Your task to perform on an android device: open chrome and create a bookmark for the current page Image 0: 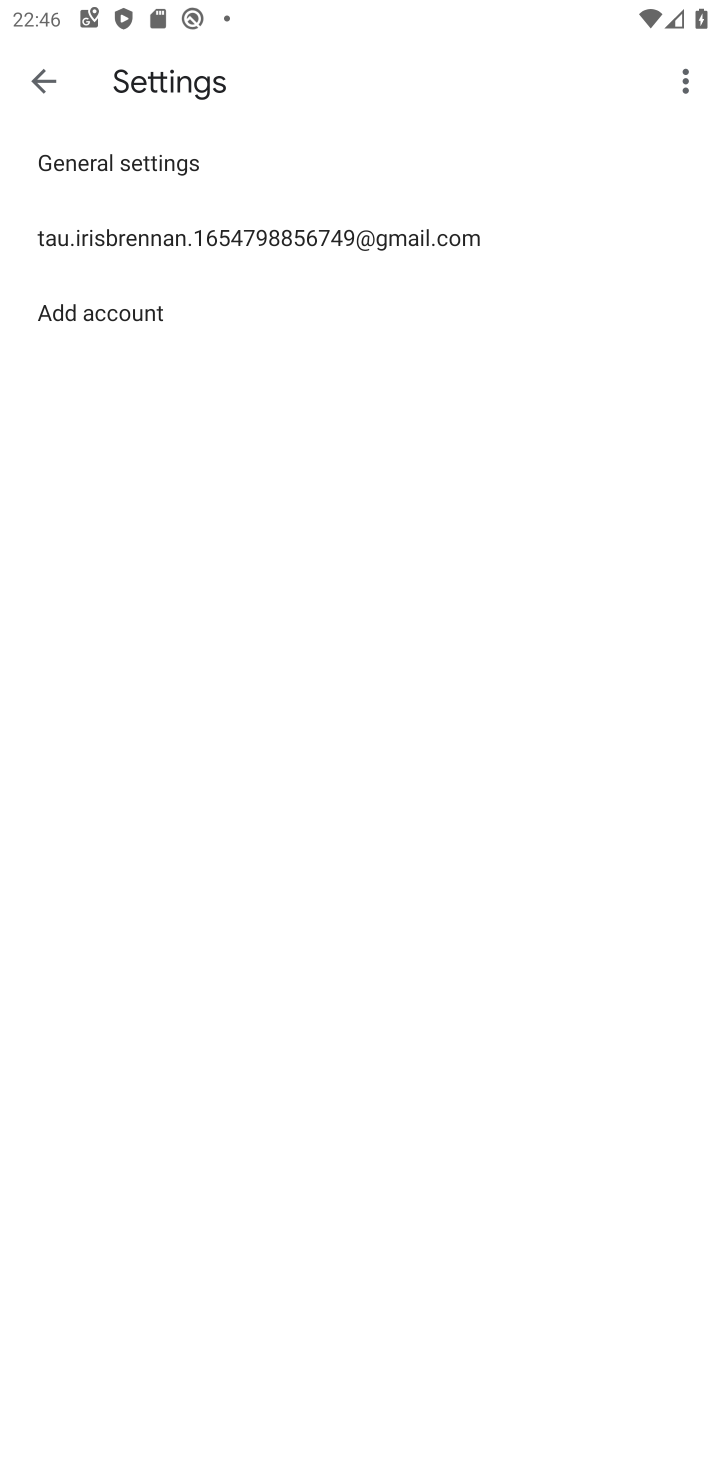
Step 0: press home button
Your task to perform on an android device: open chrome and create a bookmark for the current page Image 1: 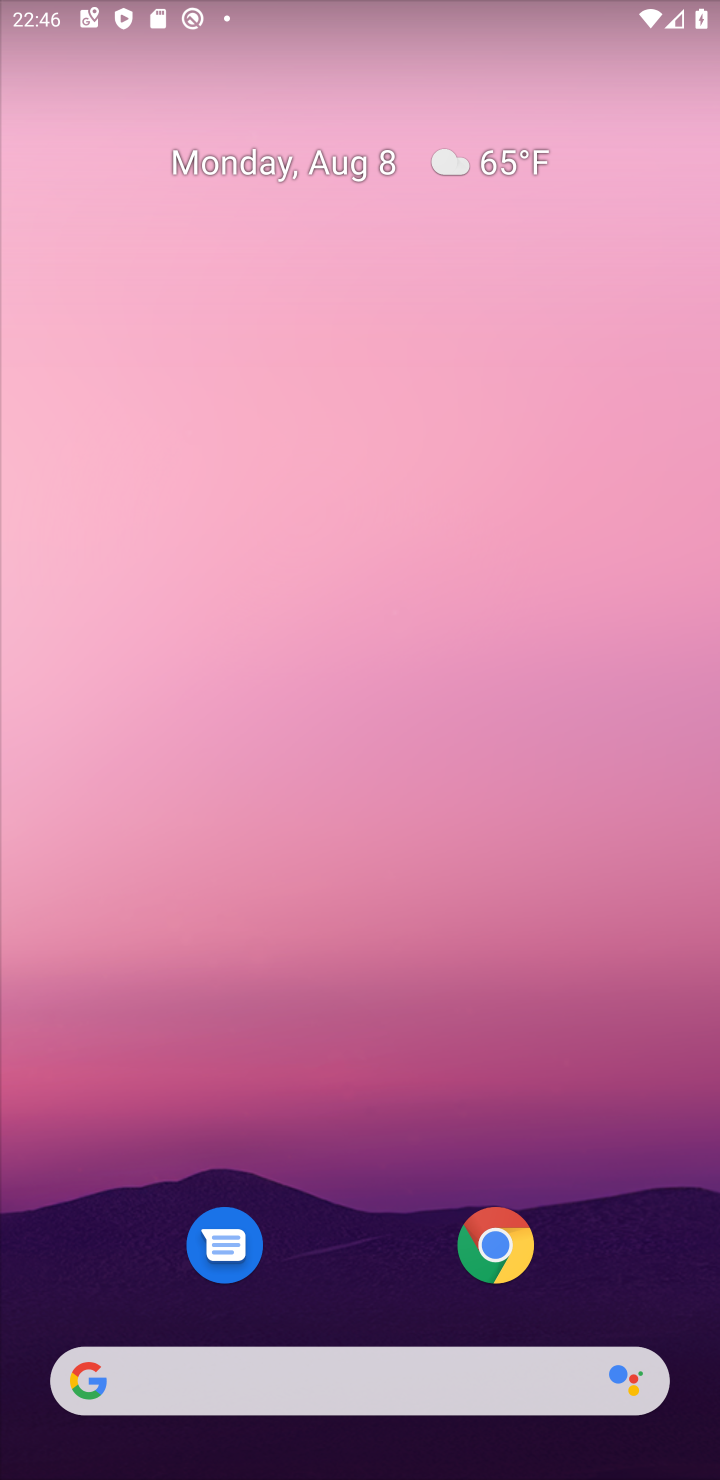
Step 1: click (495, 1245)
Your task to perform on an android device: open chrome and create a bookmark for the current page Image 2: 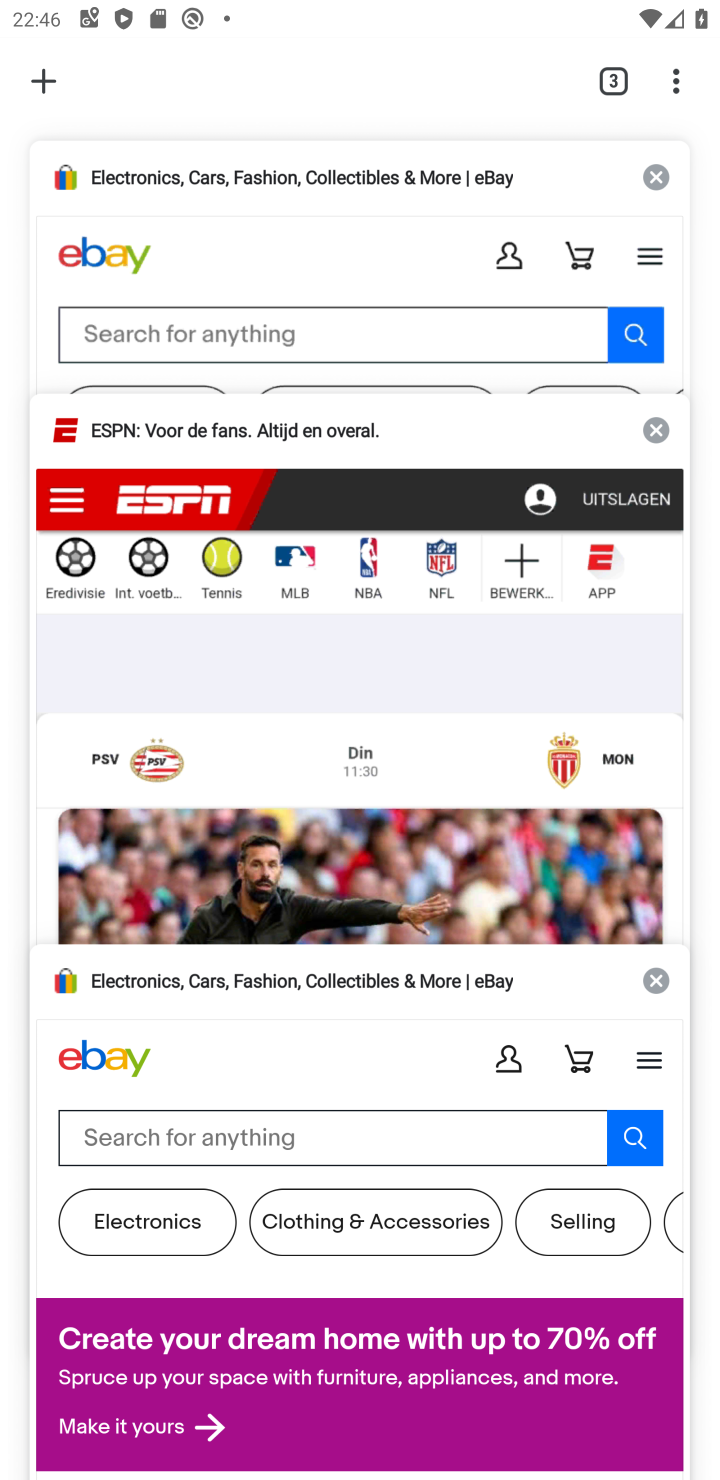
Step 2: click (677, 74)
Your task to perform on an android device: open chrome and create a bookmark for the current page Image 3: 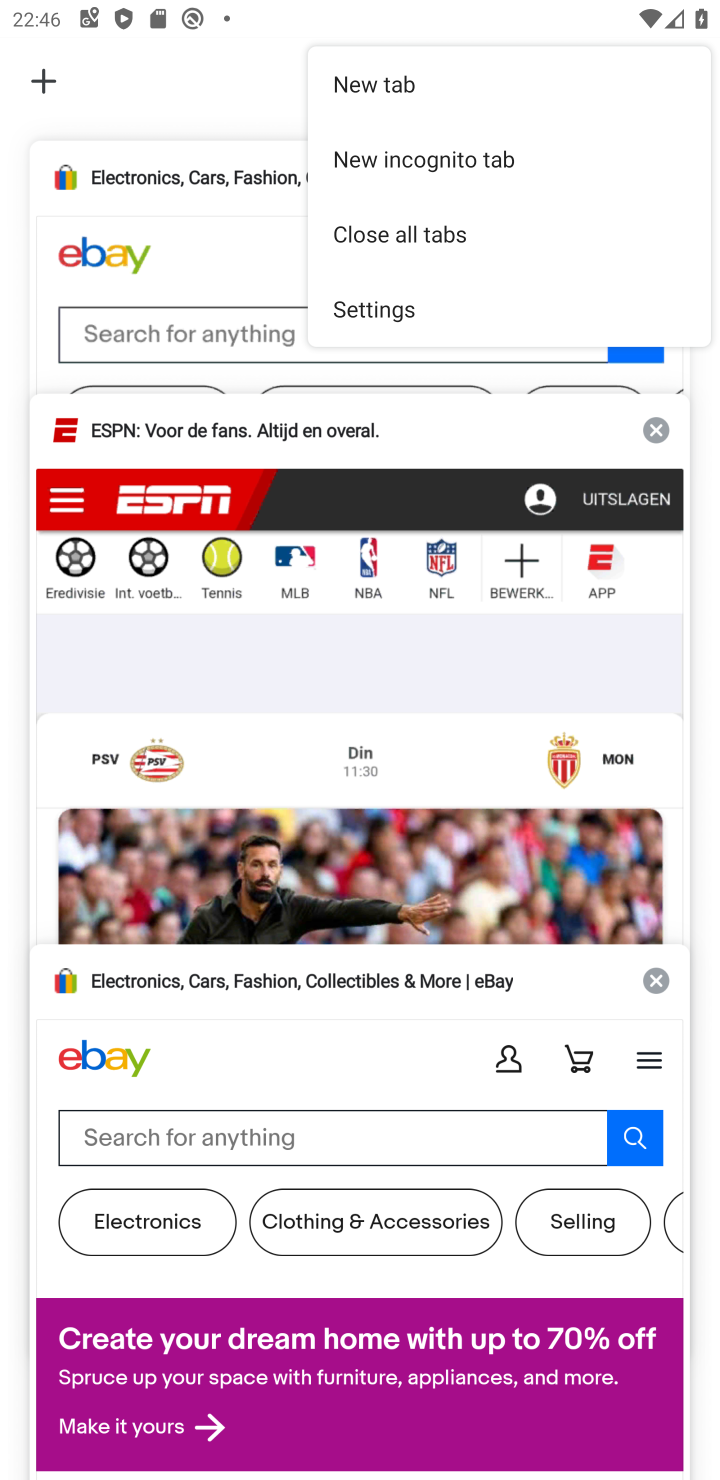
Step 3: click (239, 91)
Your task to perform on an android device: open chrome and create a bookmark for the current page Image 4: 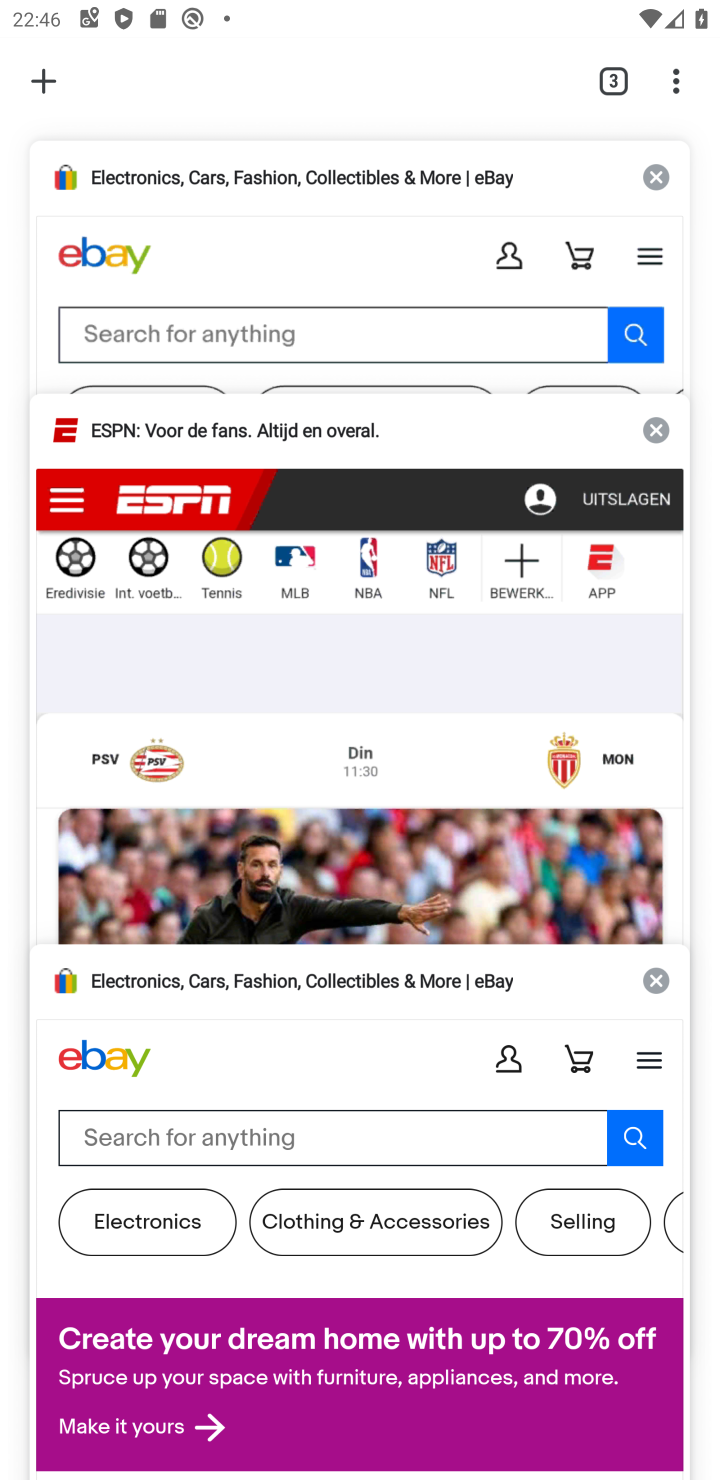
Step 4: click (402, 255)
Your task to perform on an android device: open chrome and create a bookmark for the current page Image 5: 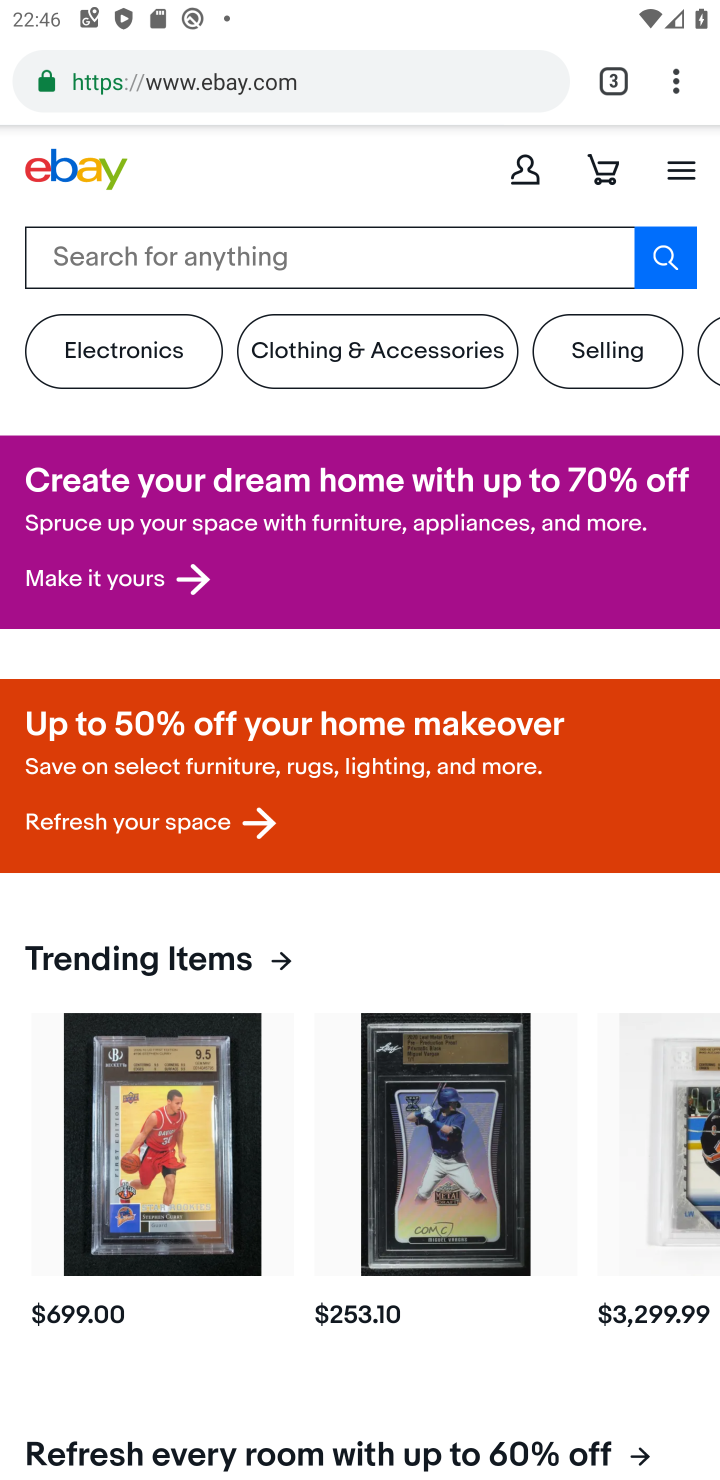
Step 5: click (677, 83)
Your task to perform on an android device: open chrome and create a bookmark for the current page Image 6: 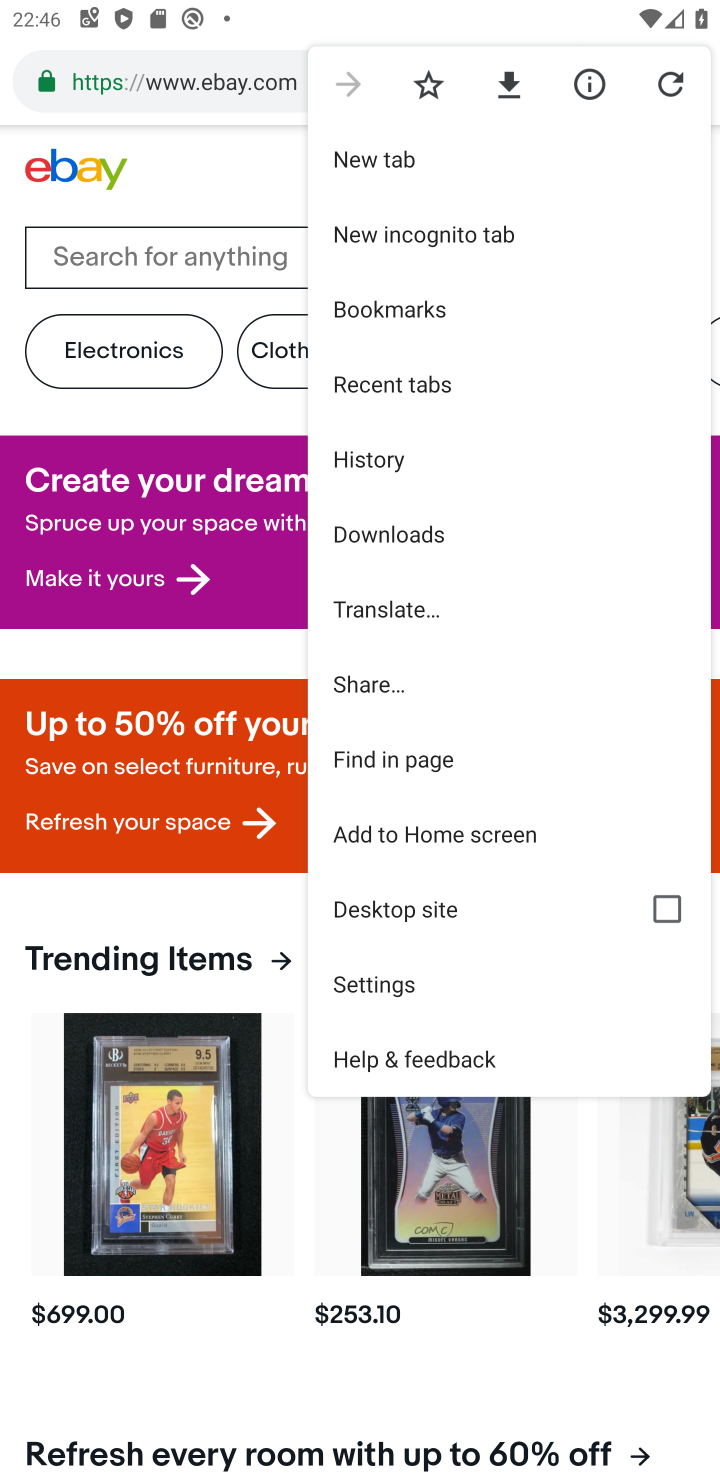
Step 6: click (424, 84)
Your task to perform on an android device: open chrome and create a bookmark for the current page Image 7: 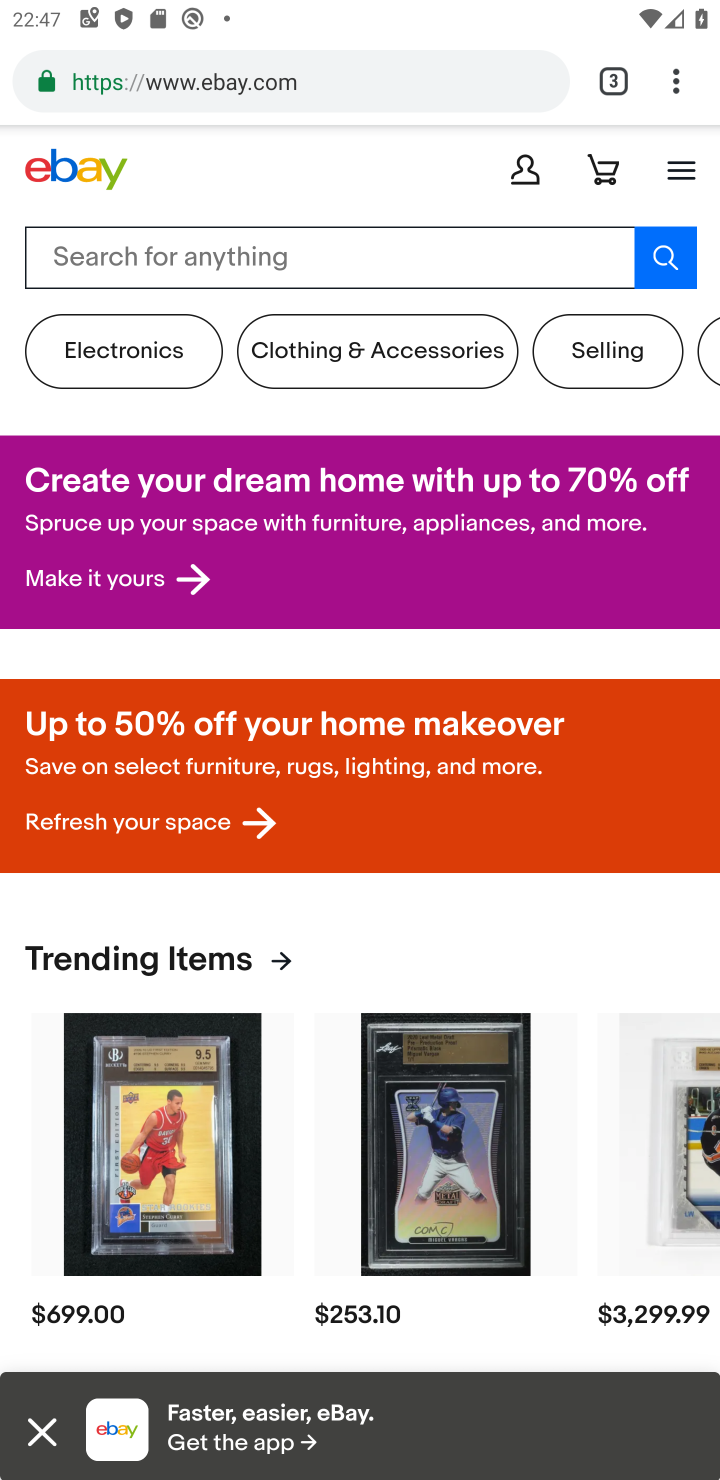
Step 7: task complete